Your task to perform on an android device: Open the stopwatch Image 0: 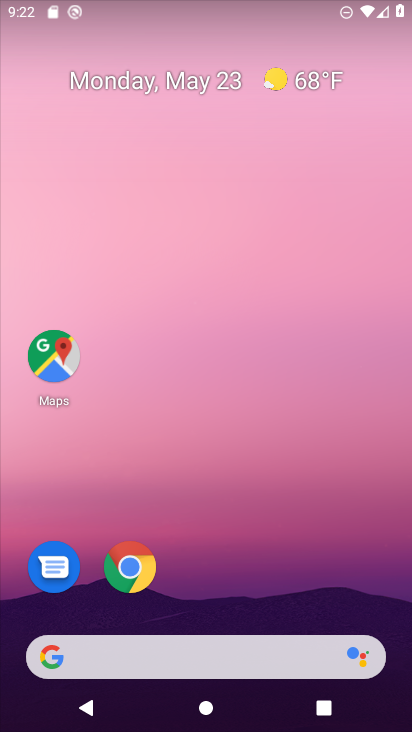
Step 0: click (382, 636)
Your task to perform on an android device: Open the stopwatch Image 1: 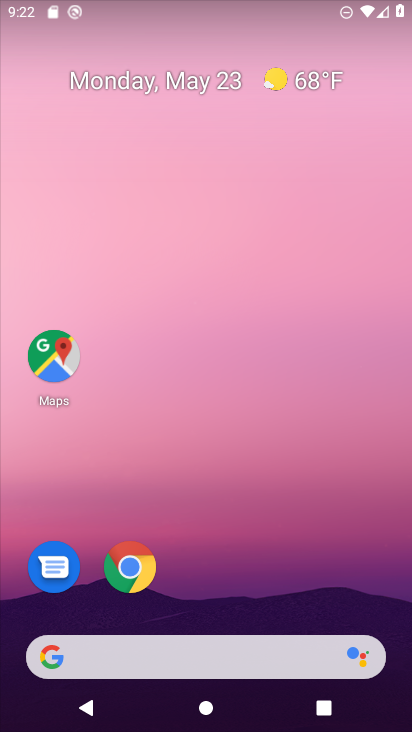
Step 1: drag from (209, 620) to (364, 0)
Your task to perform on an android device: Open the stopwatch Image 2: 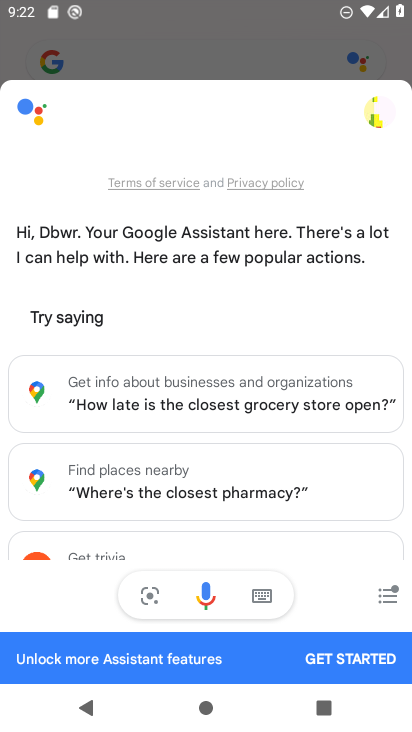
Step 2: drag from (190, 627) to (296, 191)
Your task to perform on an android device: Open the stopwatch Image 3: 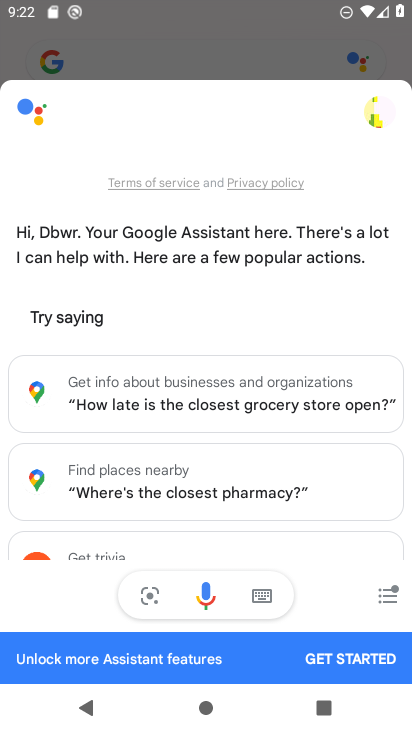
Step 3: drag from (348, 502) to (360, 123)
Your task to perform on an android device: Open the stopwatch Image 4: 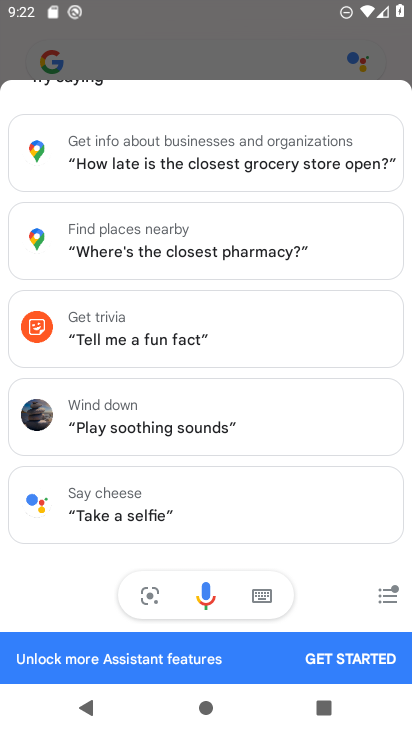
Step 4: drag from (247, 531) to (322, 202)
Your task to perform on an android device: Open the stopwatch Image 5: 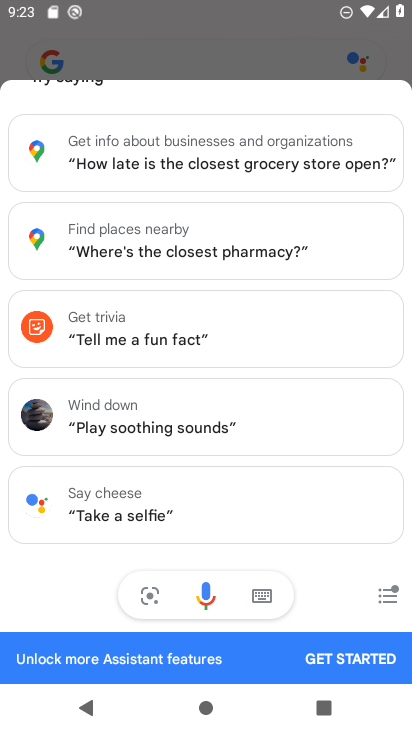
Step 5: drag from (244, 118) to (312, 588)
Your task to perform on an android device: Open the stopwatch Image 6: 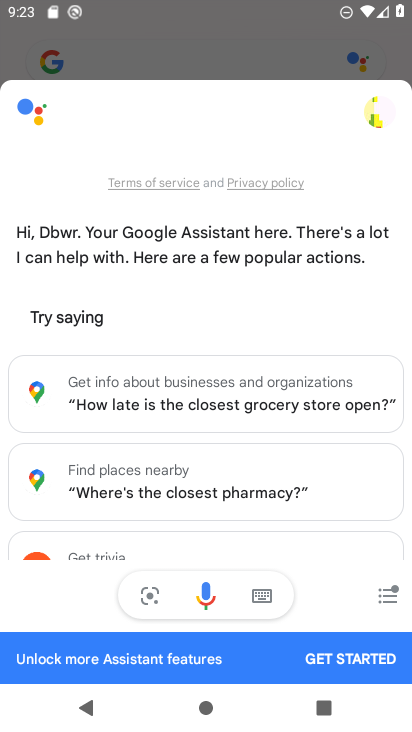
Step 6: press home button
Your task to perform on an android device: Open the stopwatch Image 7: 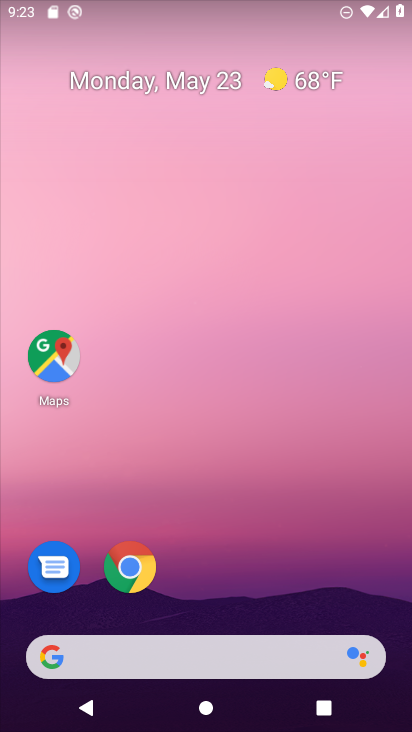
Step 7: drag from (226, 534) to (339, 5)
Your task to perform on an android device: Open the stopwatch Image 8: 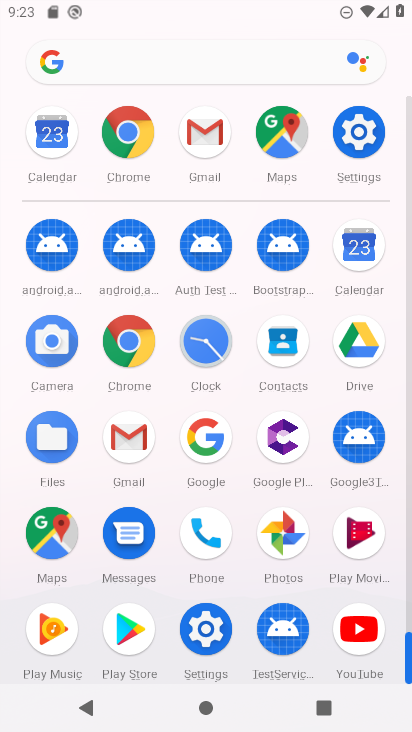
Step 8: click (364, 130)
Your task to perform on an android device: Open the stopwatch Image 9: 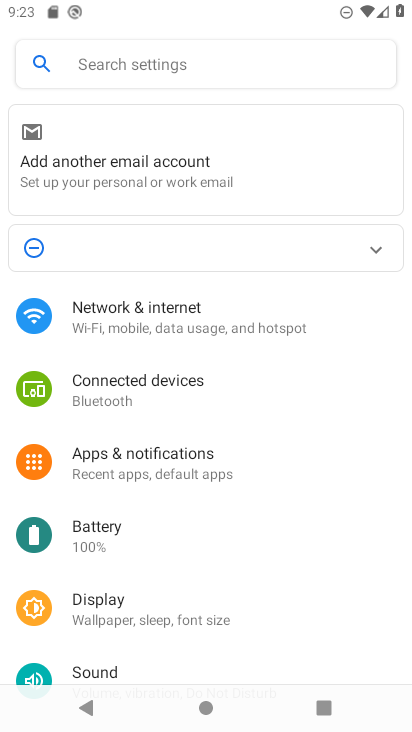
Step 9: drag from (148, 589) to (232, 166)
Your task to perform on an android device: Open the stopwatch Image 10: 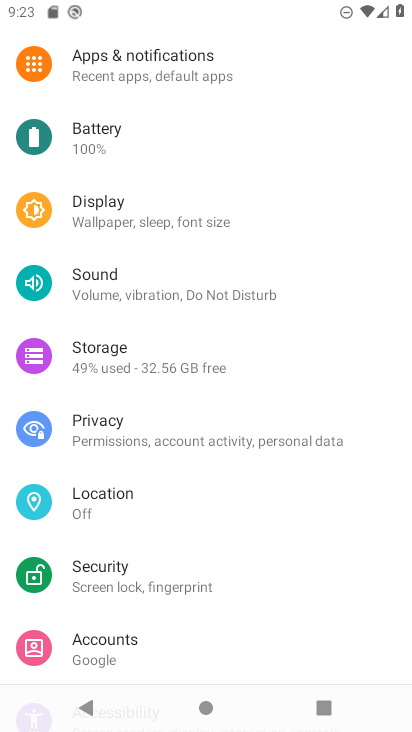
Step 10: press home button
Your task to perform on an android device: Open the stopwatch Image 11: 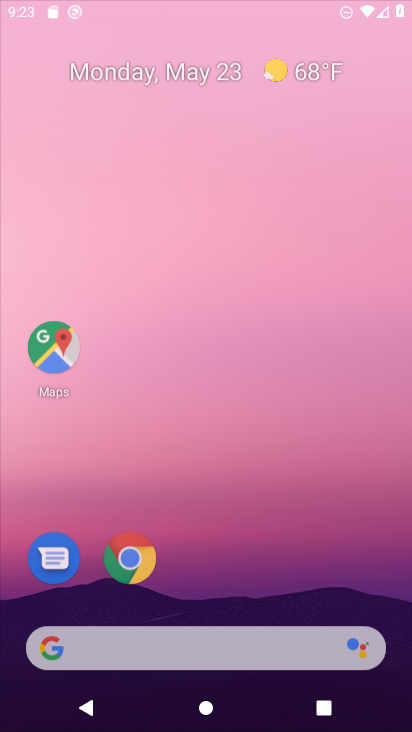
Step 11: drag from (223, 640) to (323, 147)
Your task to perform on an android device: Open the stopwatch Image 12: 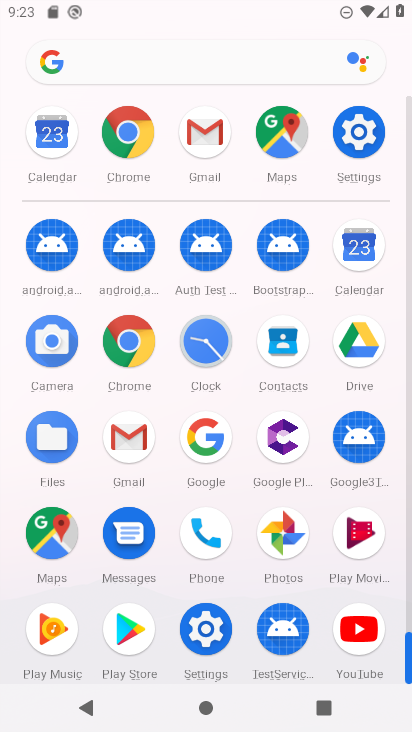
Step 12: click (196, 343)
Your task to perform on an android device: Open the stopwatch Image 13: 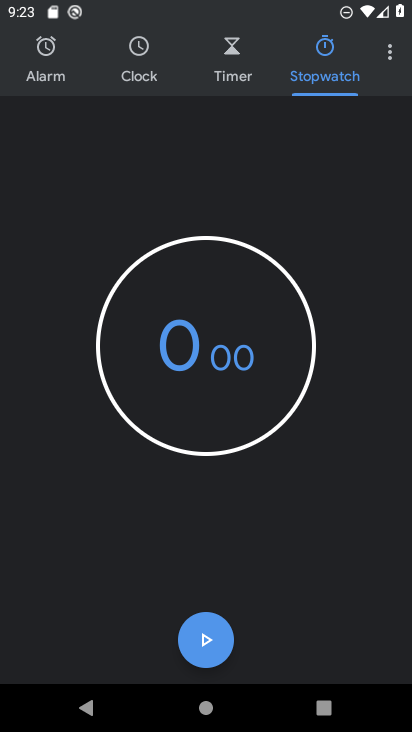
Step 13: click (196, 653)
Your task to perform on an android device: Open the stopwatch Image 14: 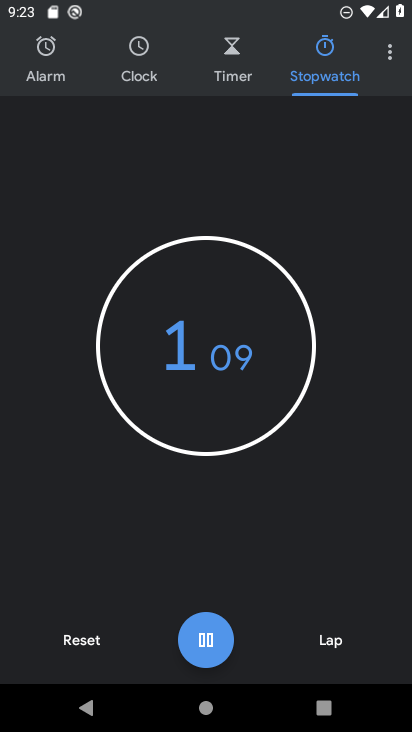
Step 14: task complete